Your task to perform on an android device: Add corsair k70 to the cart on amazon.com, then select checkout. Image 0: 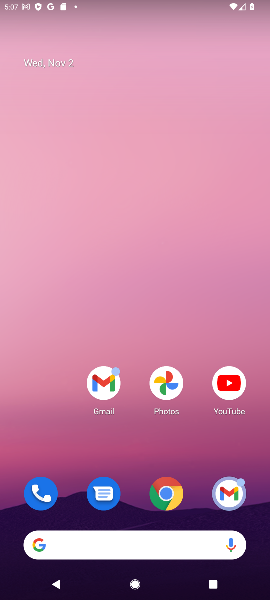
Step 0: drag from (112, 499) to (190, 177)
Your task to perform on an android device: Add corsair k70 to the cart on amazon.com, then select checkout. Image 1: 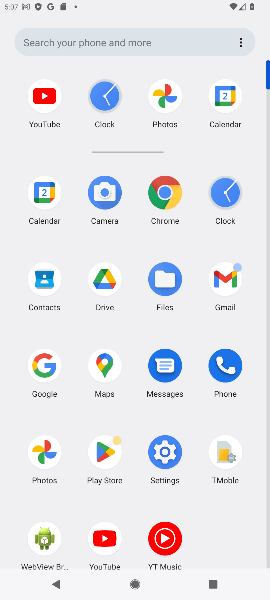
Step 1: click (41, 362)
Your task to perform on an android device: Add corsair k70 to the cart on amazon.com, then select checkout. Image 2: 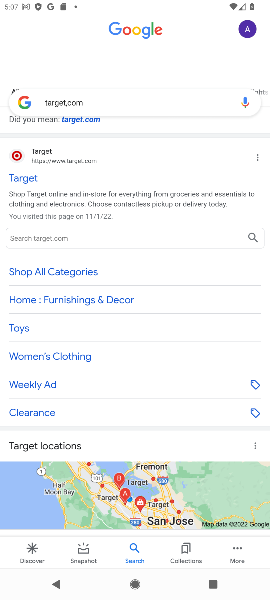
Step 2: click (99, 96)
Your task to perform on an android device: Add corsair k70 to the cart on amazon.com, then select checkout. Image 3: 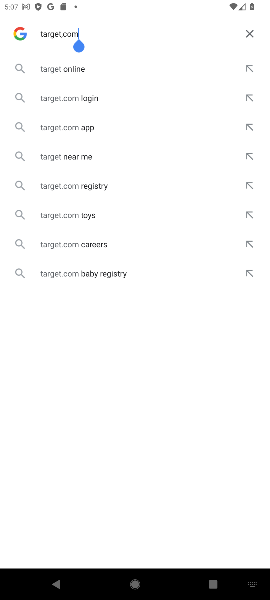
Step 3: click (246, 32)
Your task to perform on an android device: Add corsair k70 to the cart on amazon.com, then select checkout. Image 4: 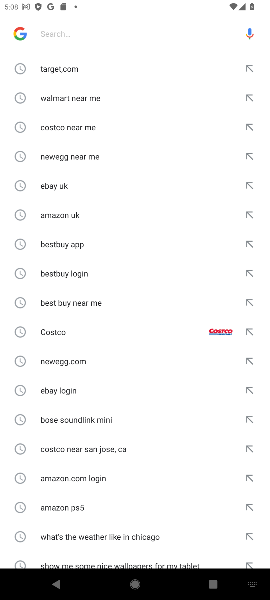
Step 4: click (66, 30)
Your task to perform on an android device: Add corsair k70 to the cart on amazon.com, then select checkout. Image 5: 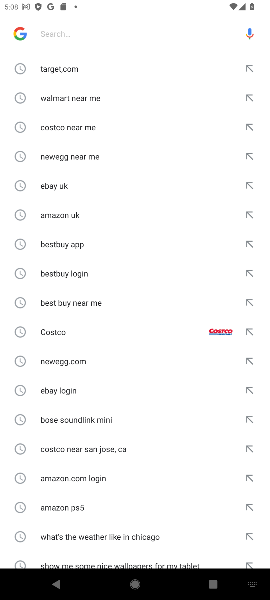
Step 5: click (61, 37)
Your task to perform on an android device: Add corsair k70 to the cart on amazon.com, then select checkout. Image 6: 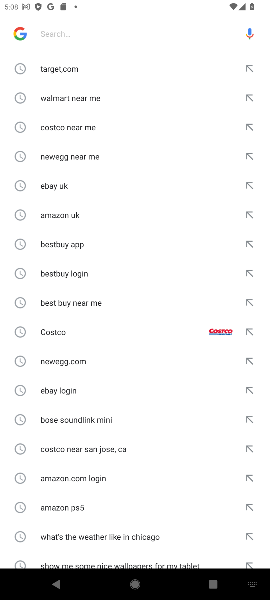
Step 6: type "amazon "
Your task to perform on an android device: Add corsair k70 to the cart on amazon.com, then select checkout. Image 7: 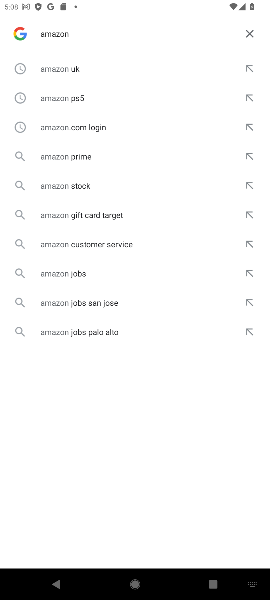
Step 7: click (47, 63)
Your task to perform on an android device: Add corsair k70 to the cart on amazon.com, then select checkout. Image 8: 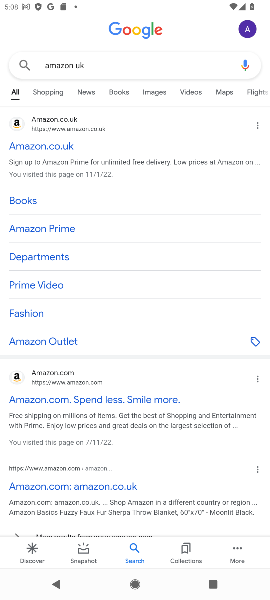
Step 8: click (36, 144)
Your task to perform on an android device: Add corsair k70 to the cart on amazon.com, then select checkout. Image 9: 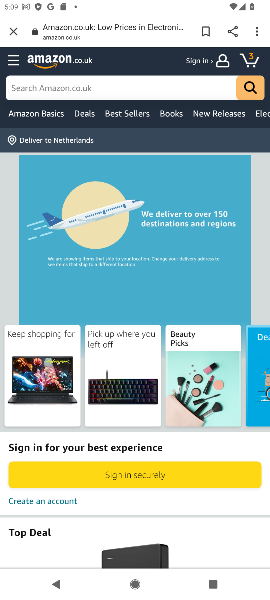
Step 9: click (112, 88)
Your task to perform on an android device: Add corsair k70 to the cart on amazon.com, then select checkout. Image 10: 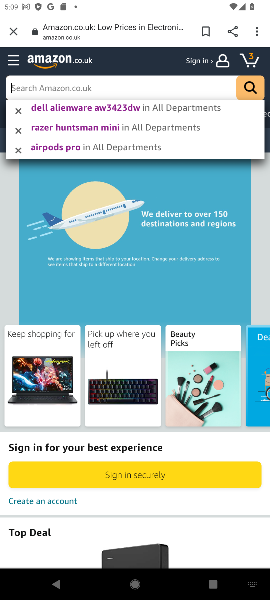
Step 10: type "corsair k70 "
Your task to perform on an android device: Add corsair k70 to the cart on amazon.com, then select checkout. Image 11: 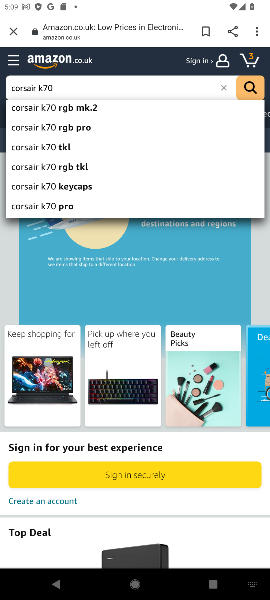
Step 11: click (40, 108)
Your task to perform on an android device: Add corsair k70 to the cart on amazon.com, then select checkout. Image 12: 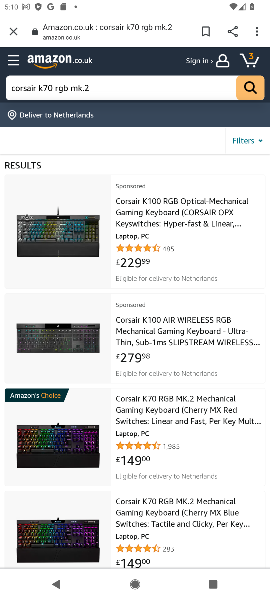
Step 12: click (139, 219)
Your task to perform on an android device: Add corsair k70 to the cart on amazon.com, then select checkout. Image 13: 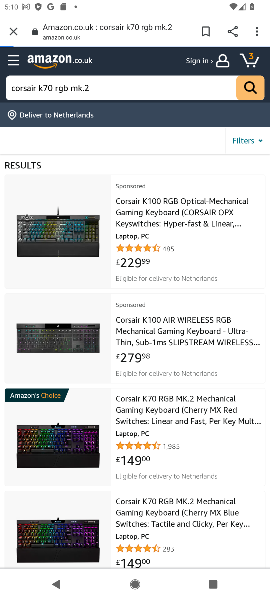
Step 13: click (137, 217)
Your task to perform on an android device: Add corsair k70 to the cart on amazon.com, then select checkout. Image 14: 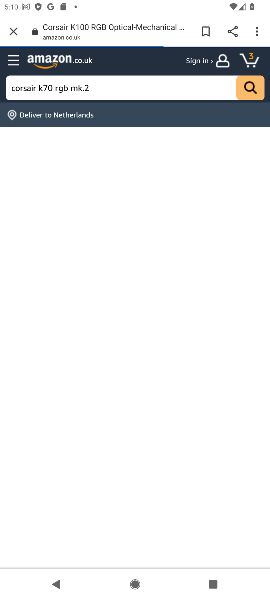
Step 14: click (137, 201)
Your task to perform on an android device: Add corsair k70 to the cart on amazon.com, then select checkout. Image 15: 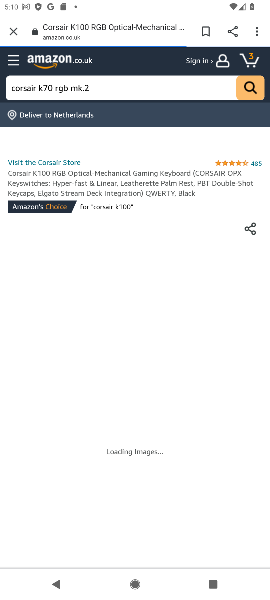
Step 15: click (137, 201)
Your task to perform on an android device: Add corsair k70 to the cart on amazon.com, then select checkout. Image 16: 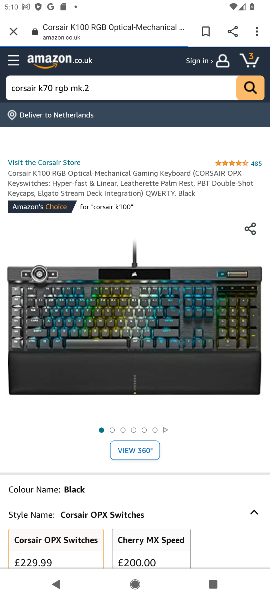
Step 16: drag from (137, 201) to (147, 460)
Your task to perform on an android device: Add corsair k70 to the cart on amazon.com, then select checkout. Image 17: 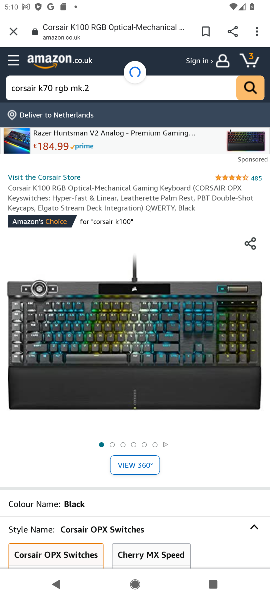
Step 17: drag from (93, 425) to (117, 251)
Your task to perform on an android device: Add corsair k70 to the cart on amazon.com, then select checkout. Image 18: 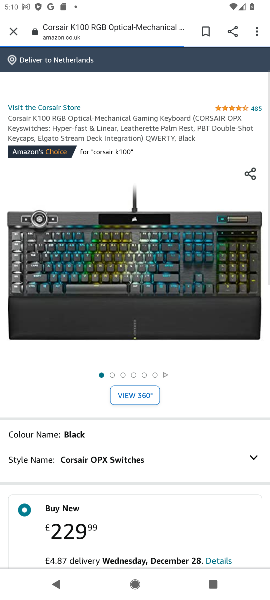
Step 18: drag from (119, 443) to (138, 255)
Your task to perform on an android device: Add corsair k70 to the cart on amazon.com, then select checkout. Image 19: 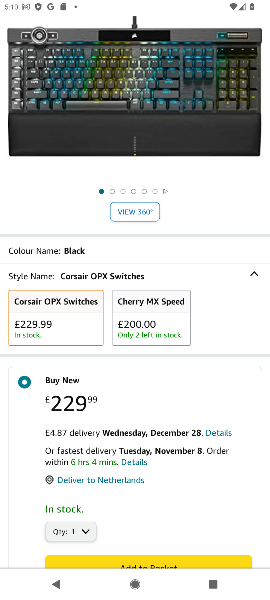
Step 19: drag from (207, 498) to (188, 187)
Your task to perform on an android device: Add corsair k70 to the cart on amazon.com, then select checkout. Image 20: 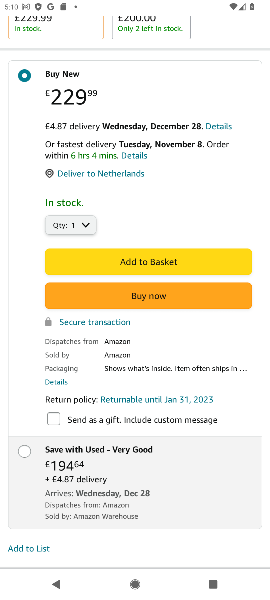
Step 20: click (164, 262)
Your task to perform on an android device: Add corsair k70 to the cart on amazon.com, then select checkout. Image 21: 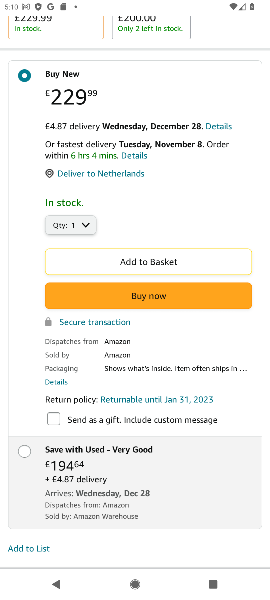
Step 21: task complete